Your task to perform on an android device: Go to network settings Image 0: 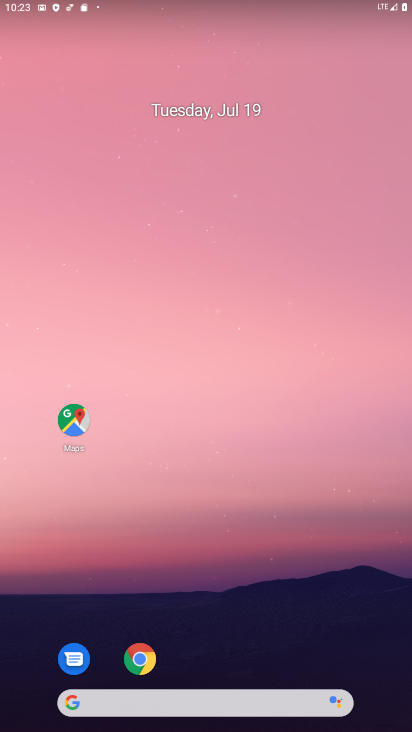
Step 0: click (263, 195)
Your task to perform on an android device: Go to network settings Image 1: 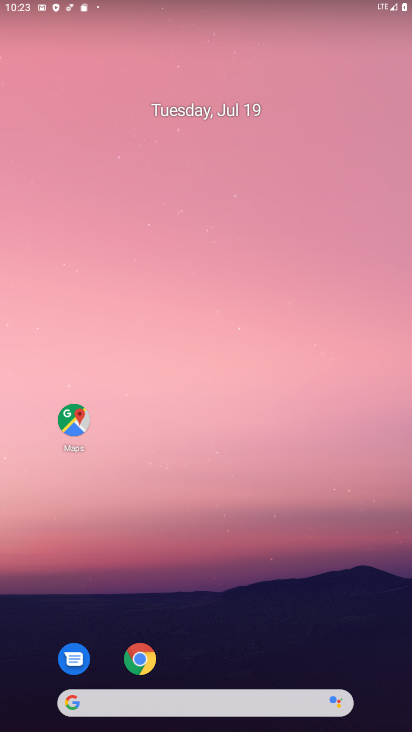
Step 1: drag from (258, 564) to (240, 232)
Your task to perform on an android device: Go to network settings Image 2: 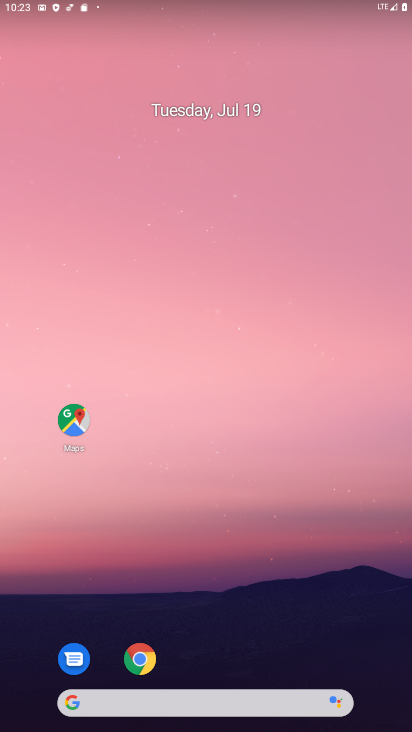
Step 2: drag from (227, 434) to (184, 187)
Your task to perform on an android device: Go to network settings Image 3: 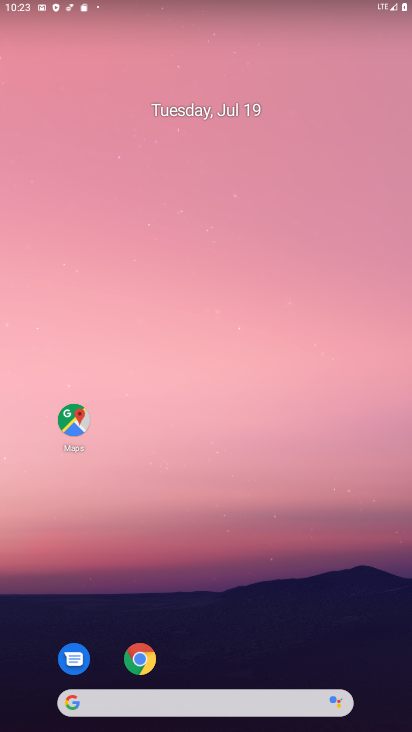
Step 3: drag from (291, 648) to (246, 137)
Your task to perform on an android device: Go to network settings Image 4: 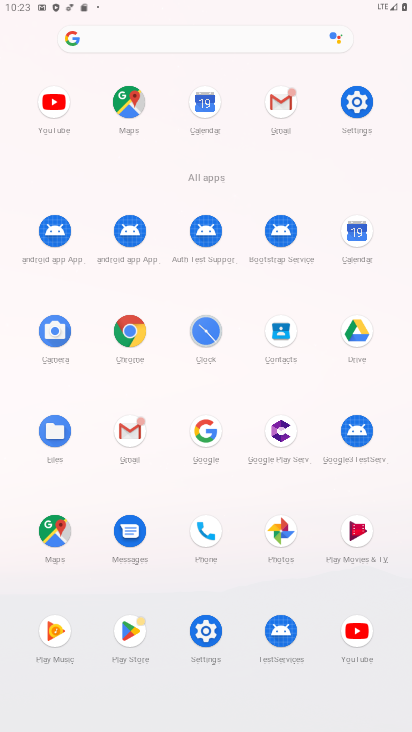
Step 4: click (357, 107)
Your task to perform on an android device: Go to network settings Image 5: 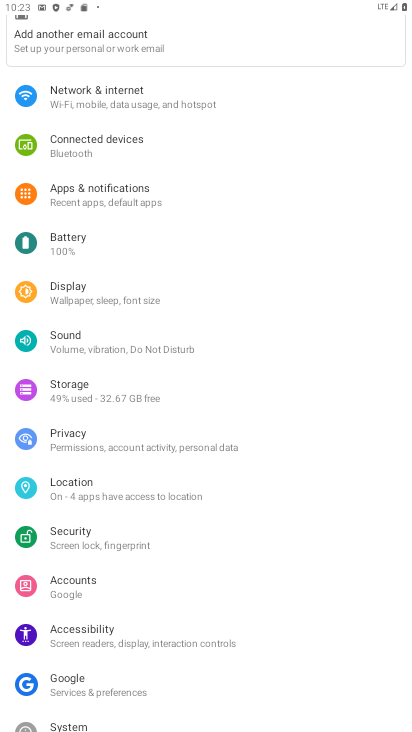
Step 5: click (109, 95)
Your task to perform on an android device: Go to network settings Image 6: 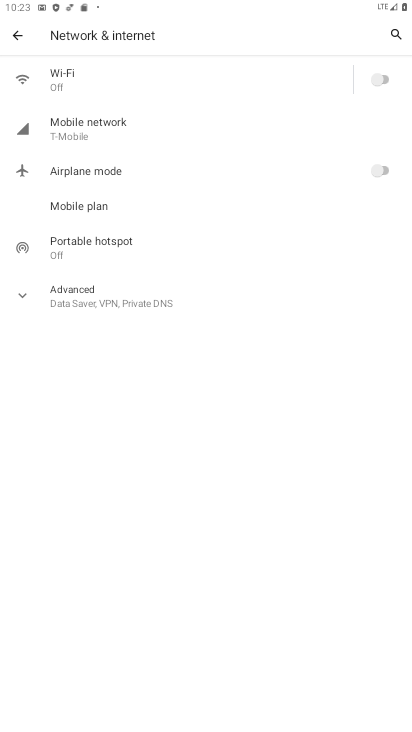
Step 6: task complete